Your task to perform on an android device: uninstall "Mercado Libre" Image 0: 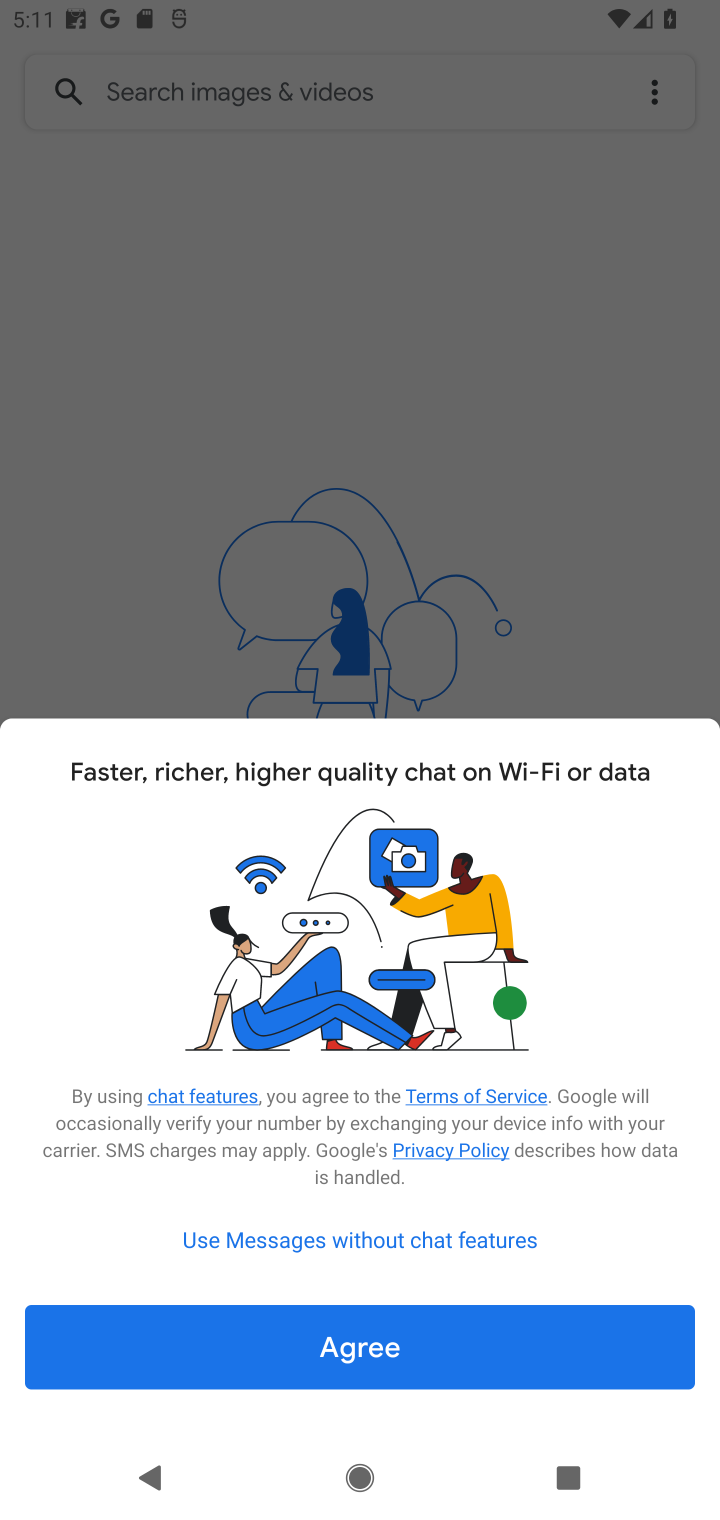
Step 0: press home button
Your task to perform on an android device: uninstall "Mercado Libre" Image 1: 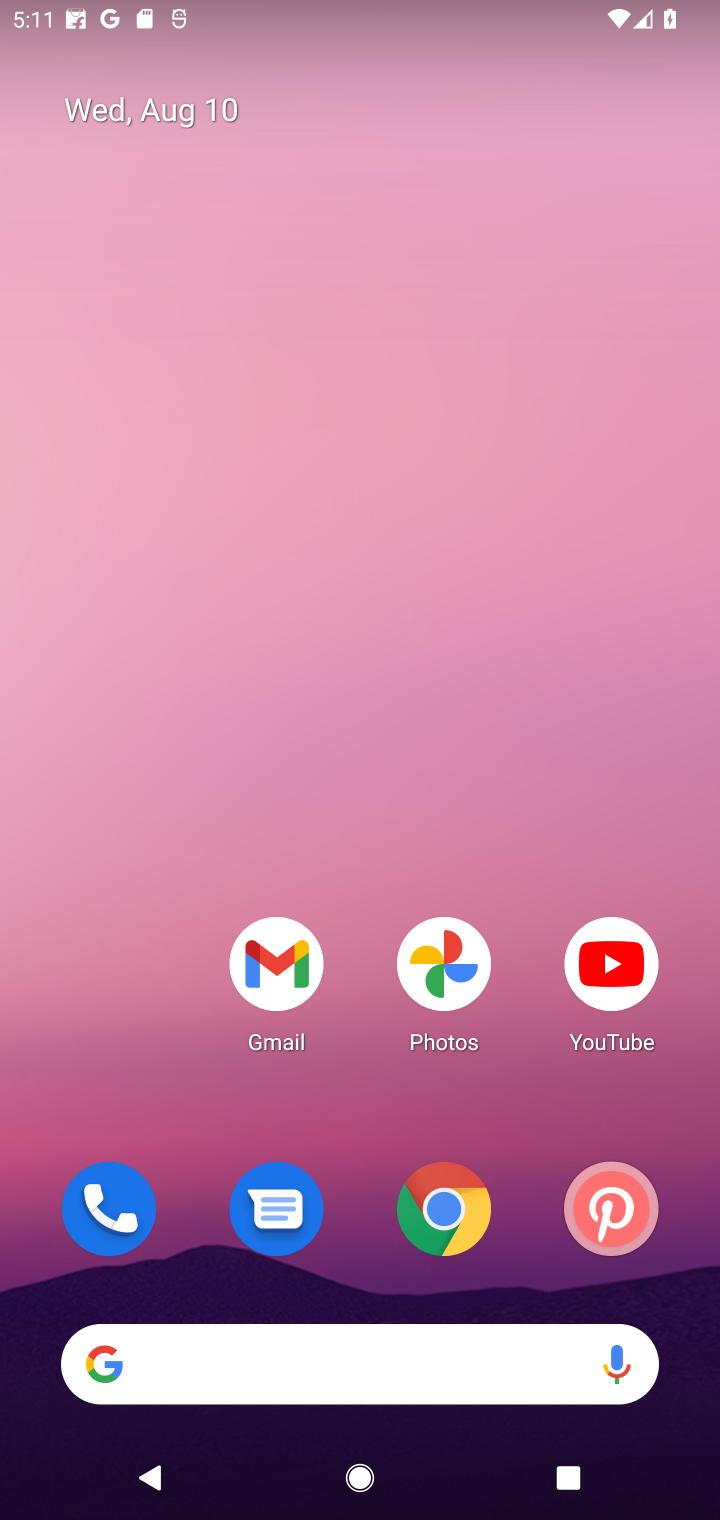
Step 1: drag from (345, 1303) to (299, 71)
Your task to perform on an android device: uninstall "Mercado Libre" Image 2: 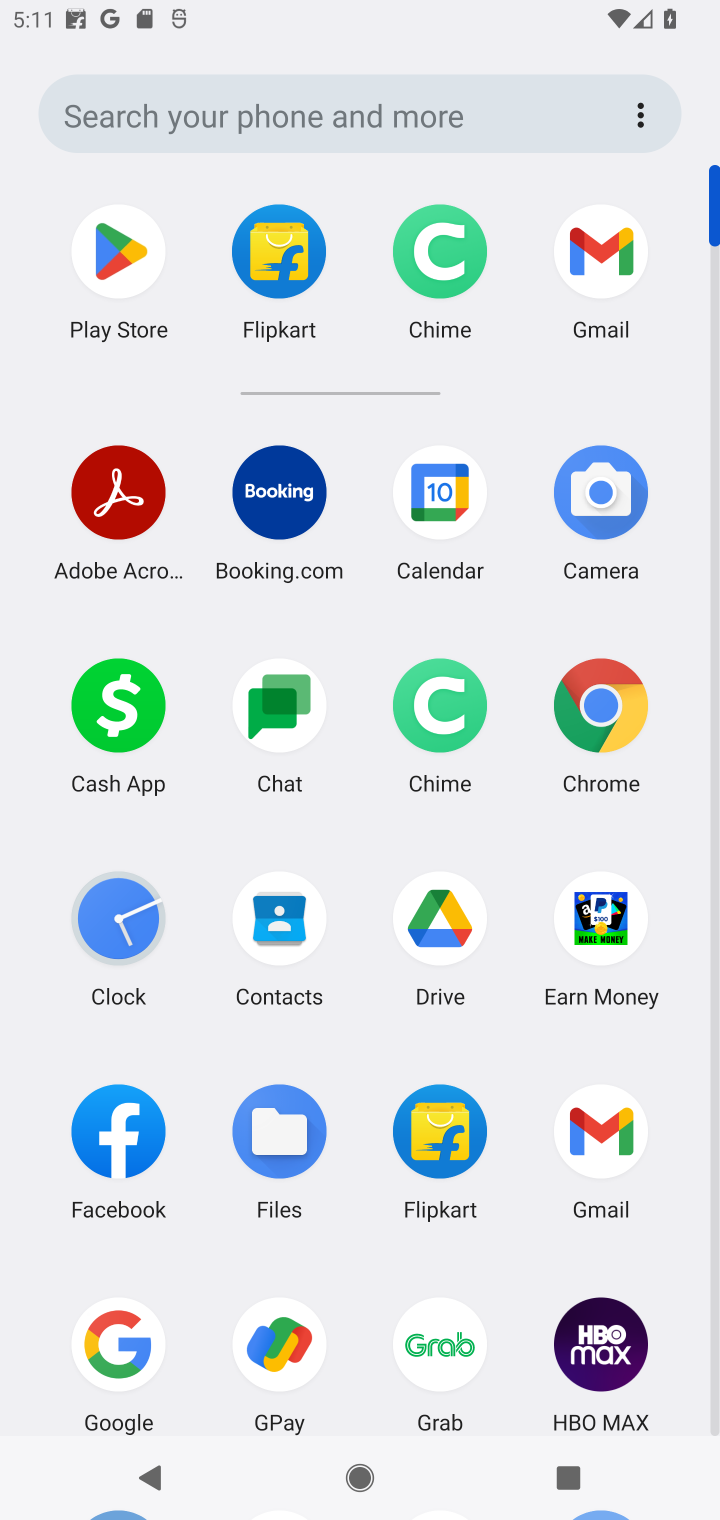
Step 2: click (128, 245)
Your task to perform on an android device: uninstall "Mercado Libre" Image 3: 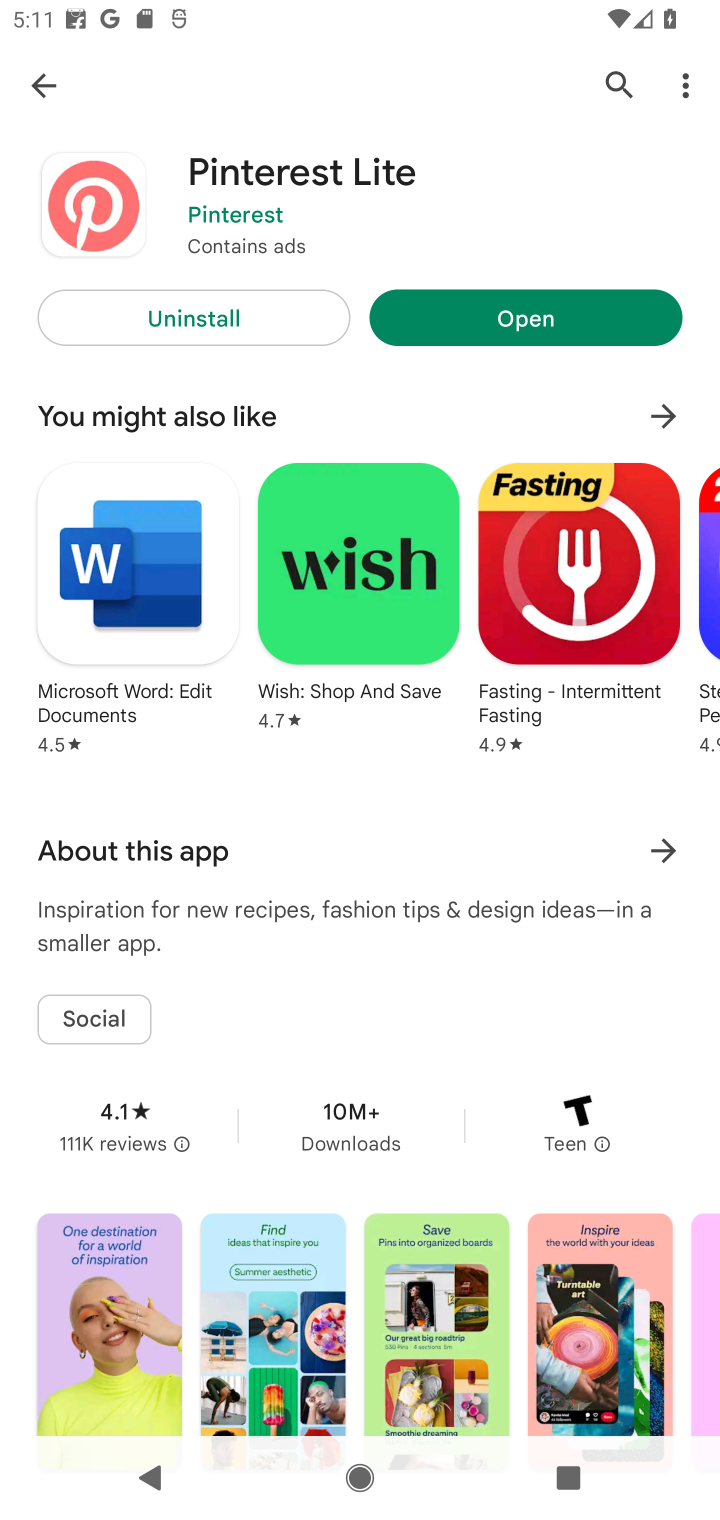
Step 3: click (589, 84)
Your task to perform on an android device: uninstall "Mercado Libre" Image 4: 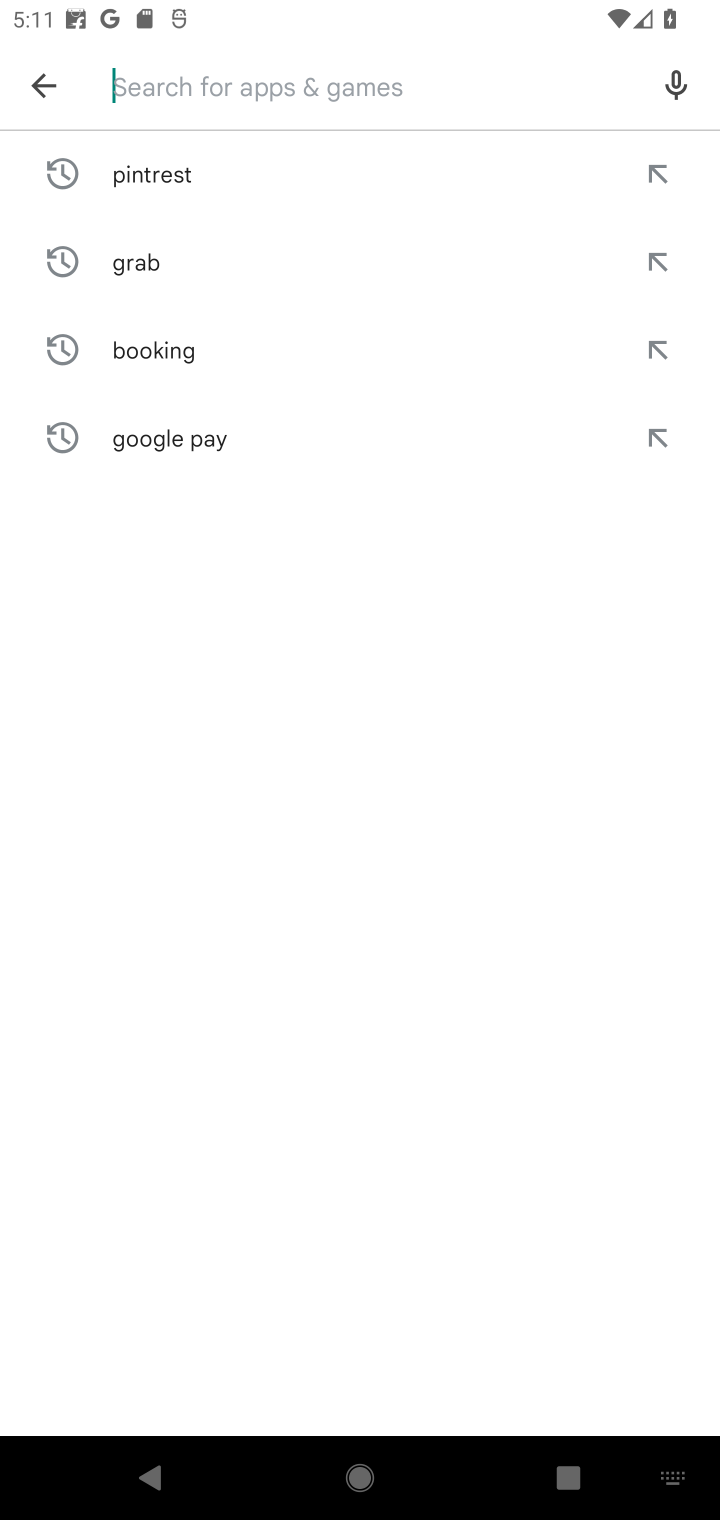
Step 4: type "mercabo liber"
Your task to perform on an android device: uninstall "Mercado Libre" Image 5: 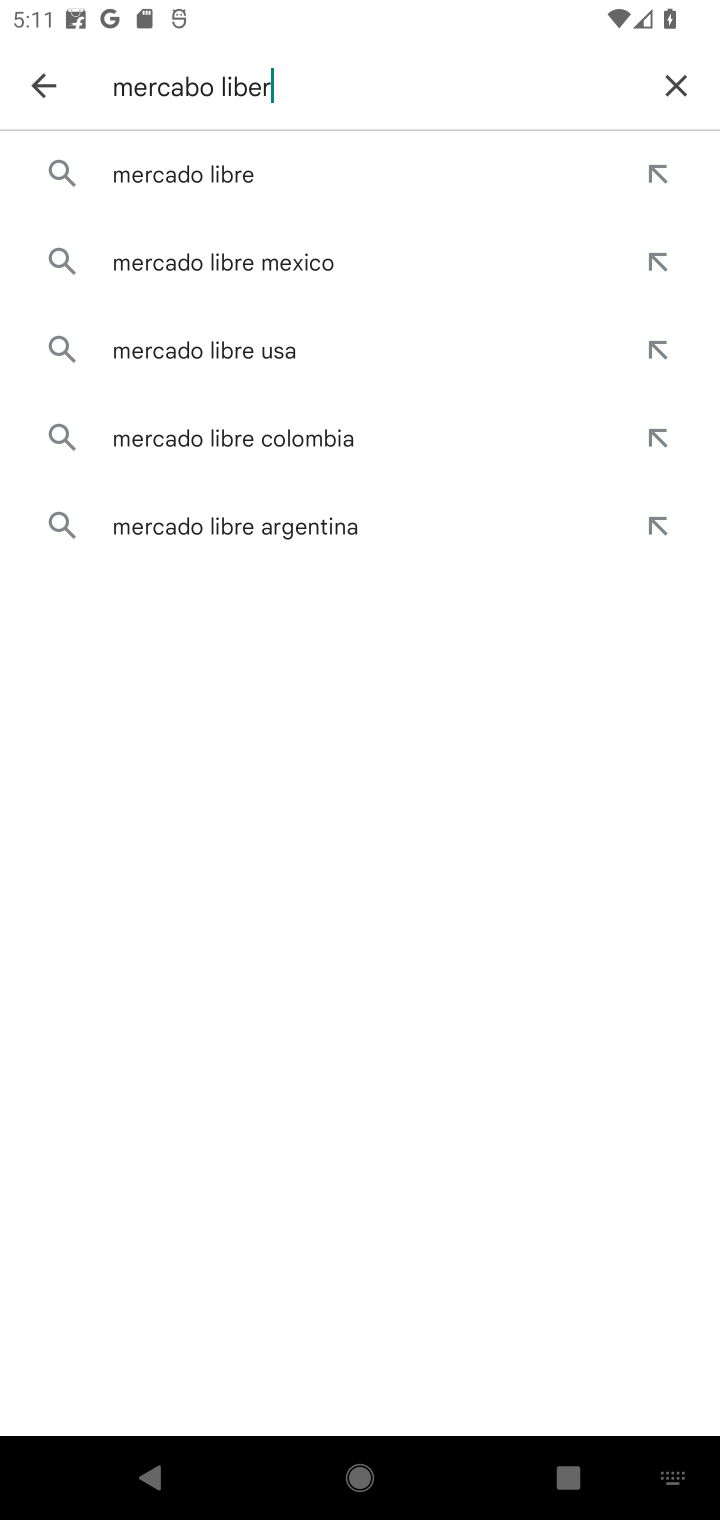
Step 5: click (201, 164)
Your task to perform on an android device: uninstall "Mercado Libre" Image 6: 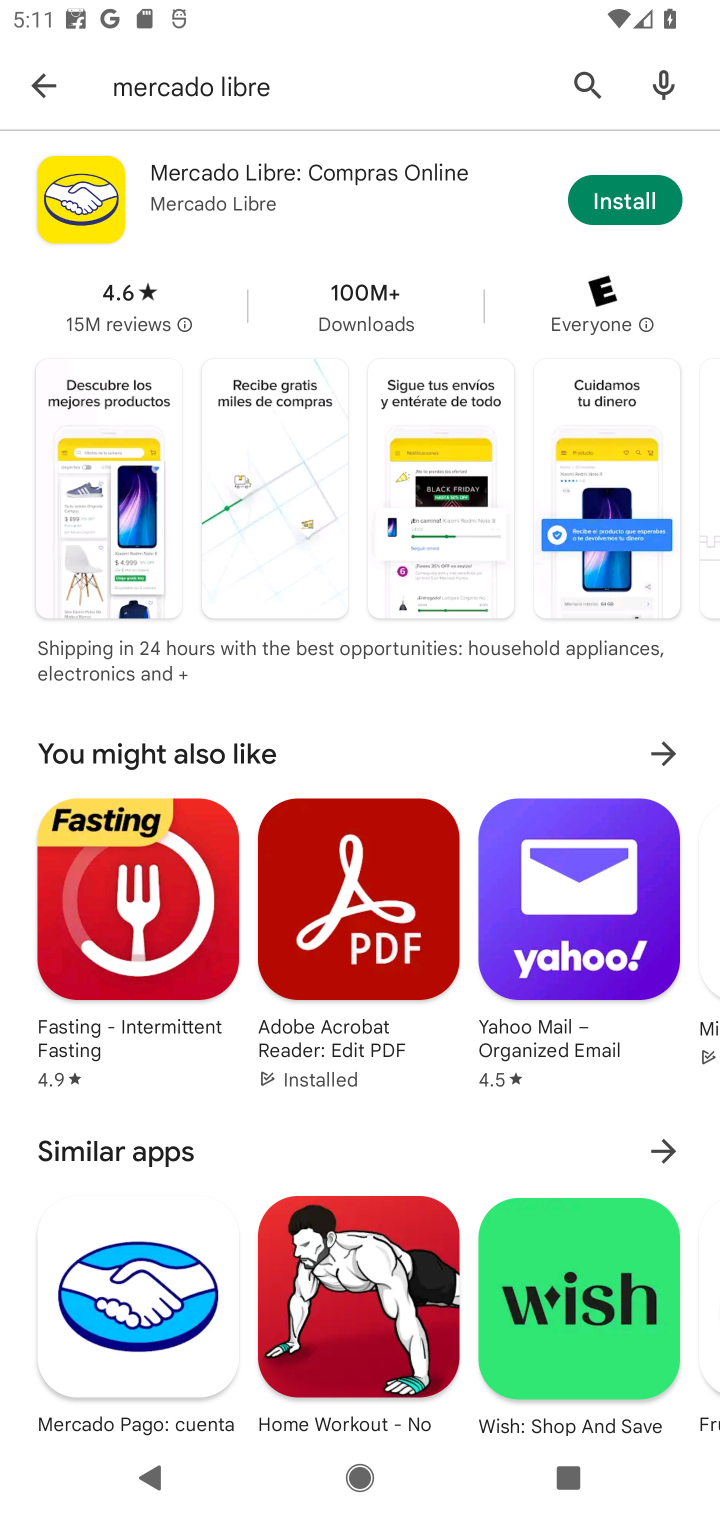
Step 6: click (644, 210)
Your task to perform on an android device: uninstall "Mercado Libre" Image 7: 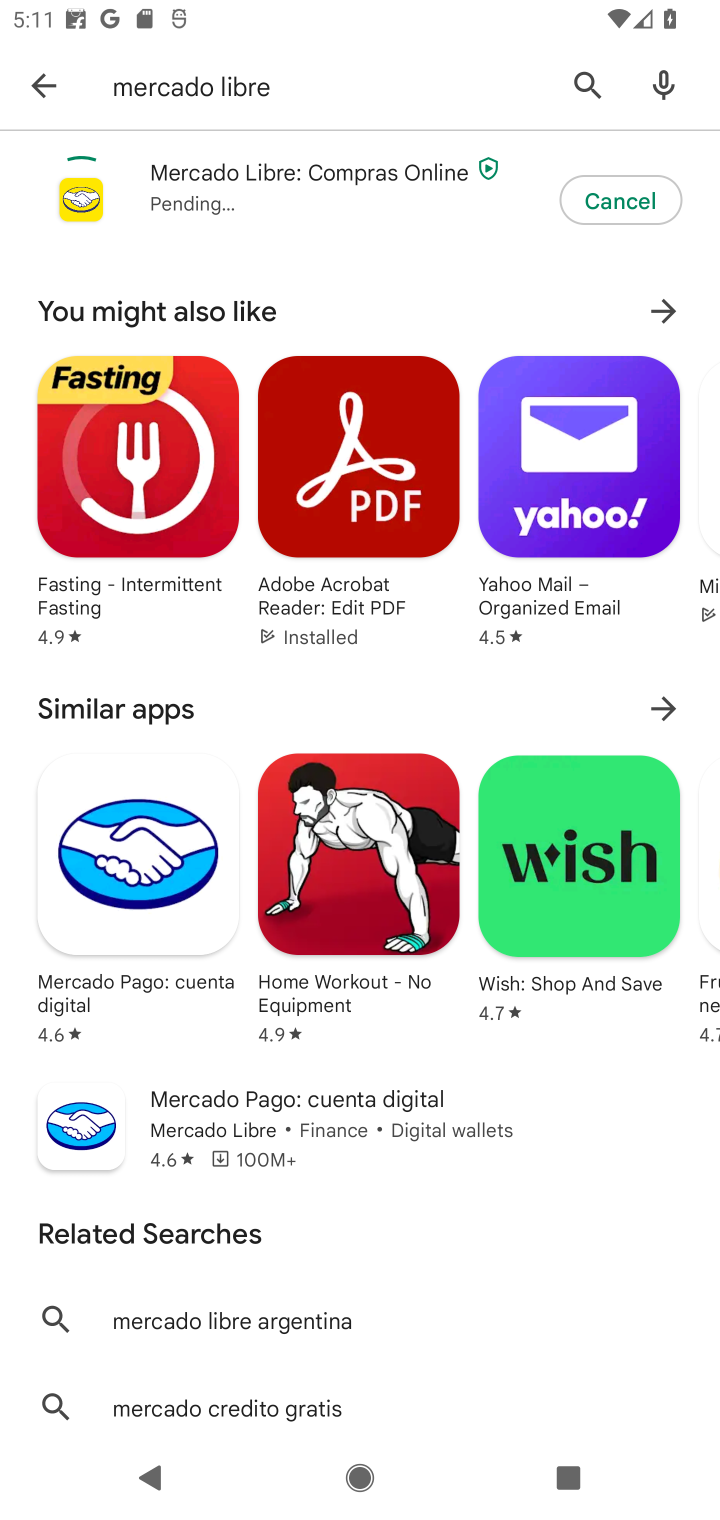
Step 7: task complete